Your task to perform on an android device: change the clock display to show seconds Image 0: 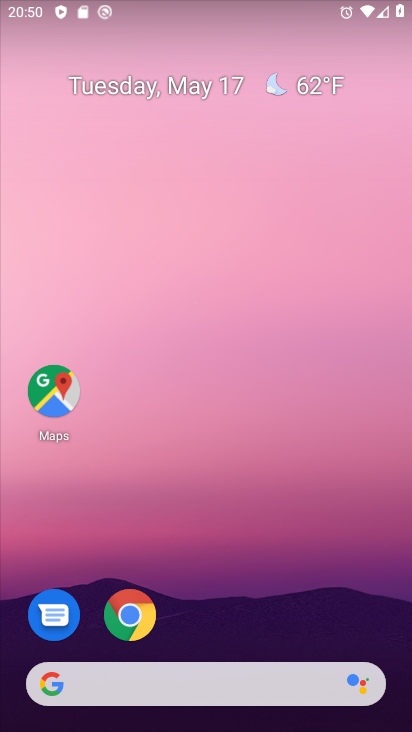
Step 0: drag from (225, 601) to (248, 43)
Your task to perform on an android device: change the clock display to show seconds Image 1: 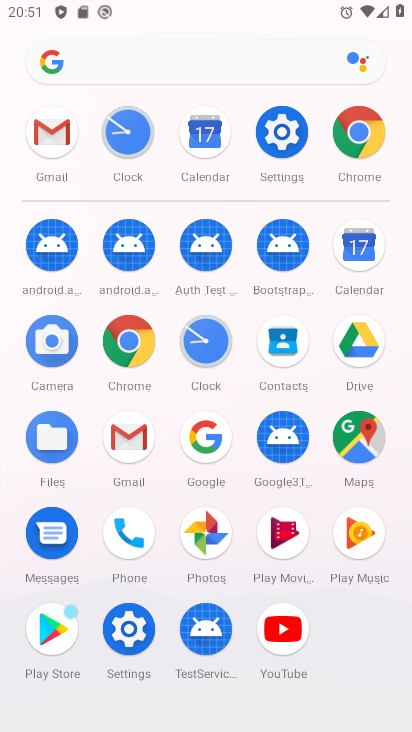
Step 1: click (276, 123)
Your task to perform on an android device: change the clock display to show seconds Image 2: 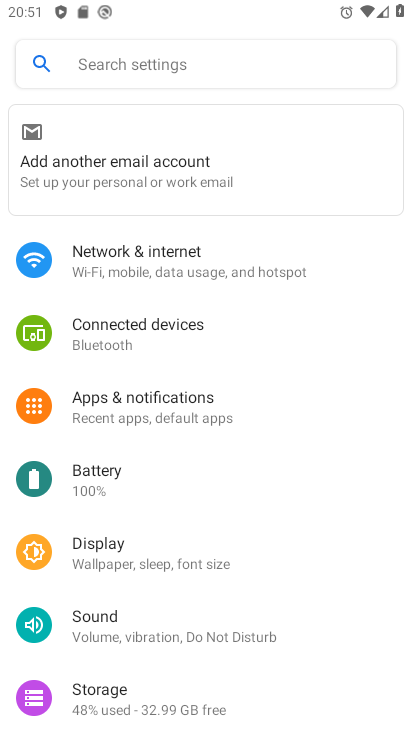
Step 2: press home button
Your task to perform on an android device: change the clock display to show seconds Image 3: 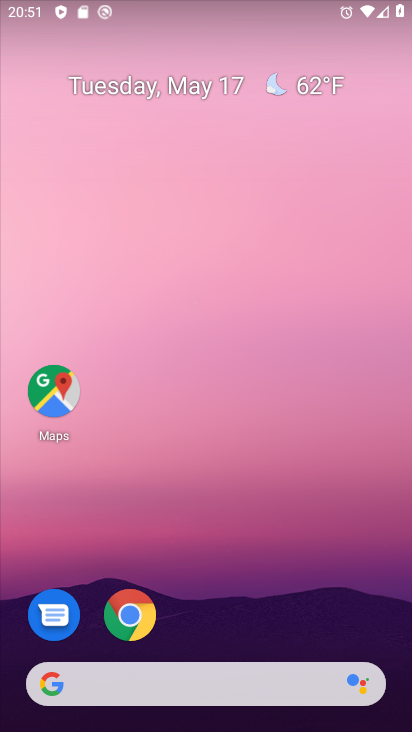
Step 3: drag from (255, 514) to (248, 98)
Your task to perform on an android device: change the clock display to show seconds Image 4: 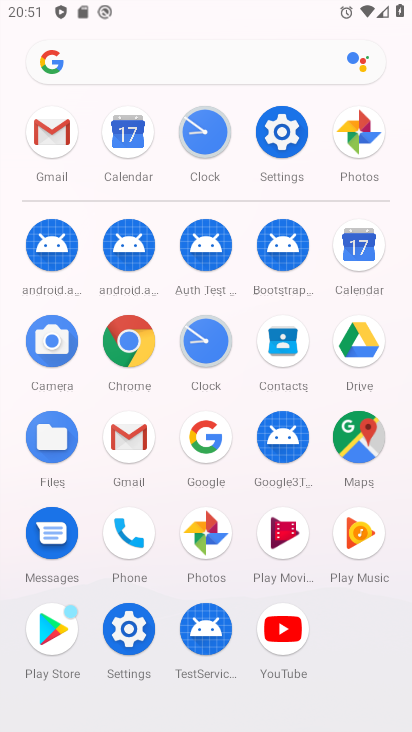
Step 4: click (208, 132)
Your task to perform on an android device: change the clock display to show seconds Image 5: 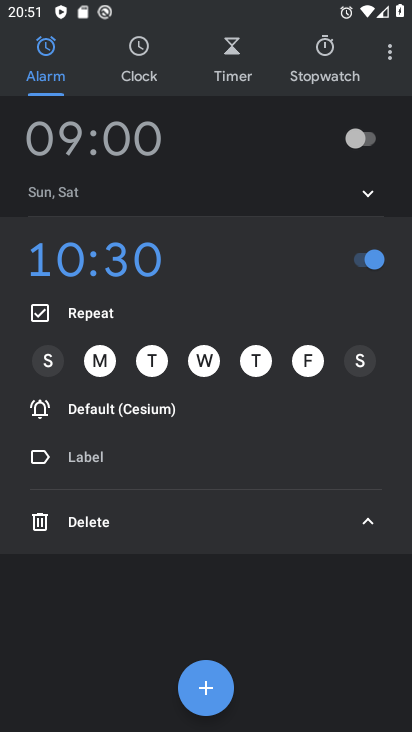
Step 5: click (393, 50)
Your task to perform on an android device: change the clock display to show seconds Image 6: 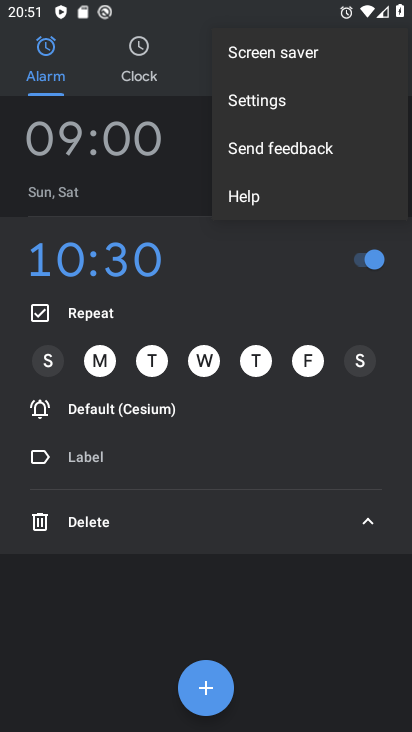
Step 6: click (260, 92)
Your task to perform on an android device: change the clock display to show seconds Image 7: 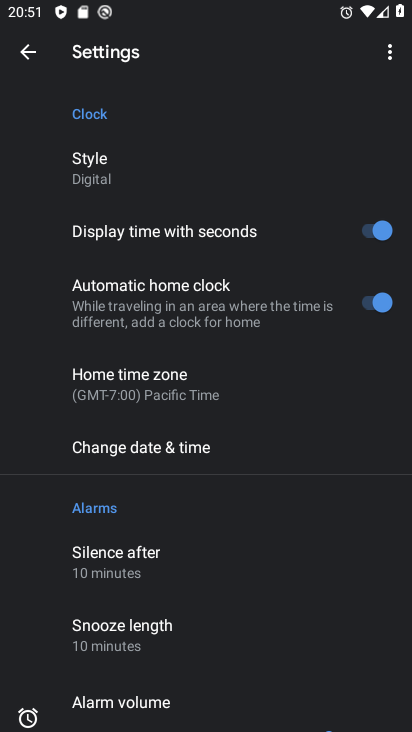
Step 7: task complete